Your task to perform on an android device: Open Wikipedia Image 0: 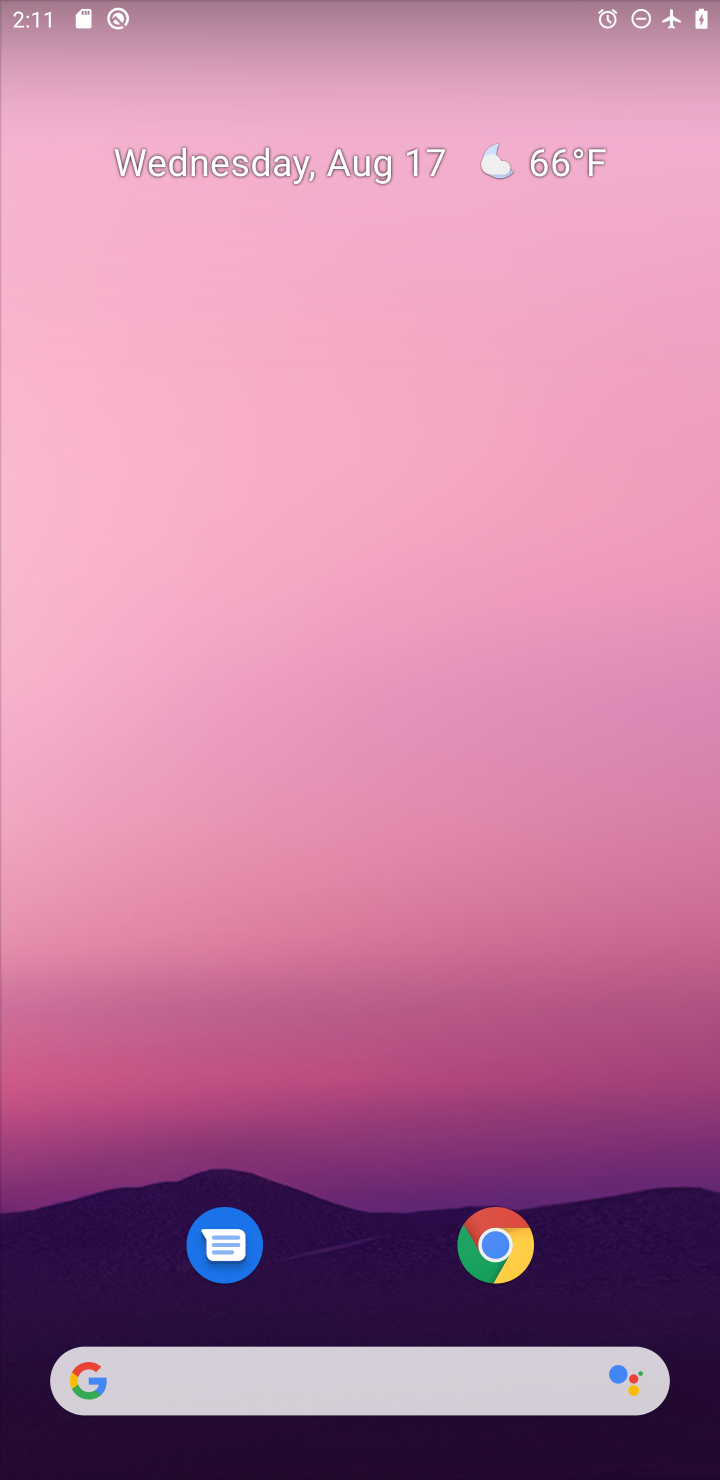
Step 0: click (497, 1246)
Your task to perform on an android device: Open Wikipedia Image 1: 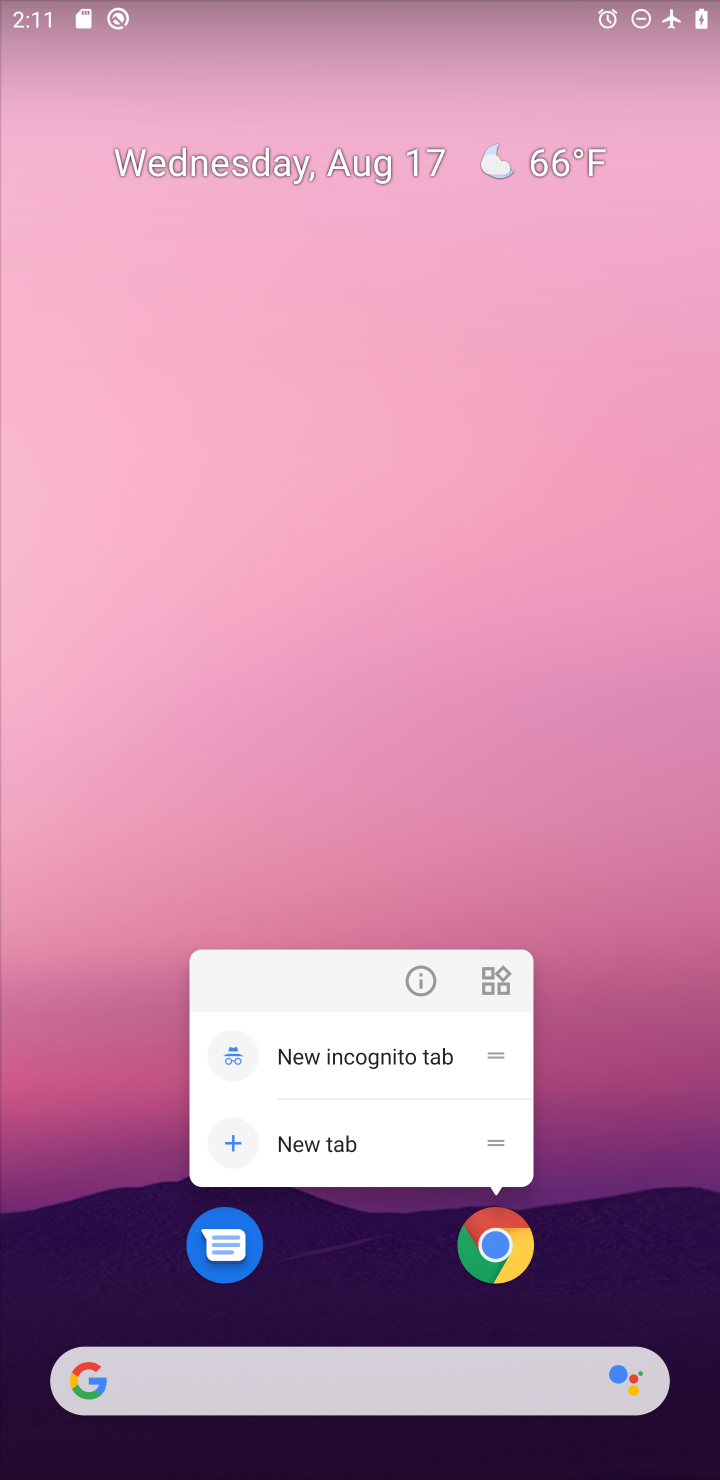
Step 1: click (497, 1246)
Your task to perform on an android device: Open Wikipedia Image 2: 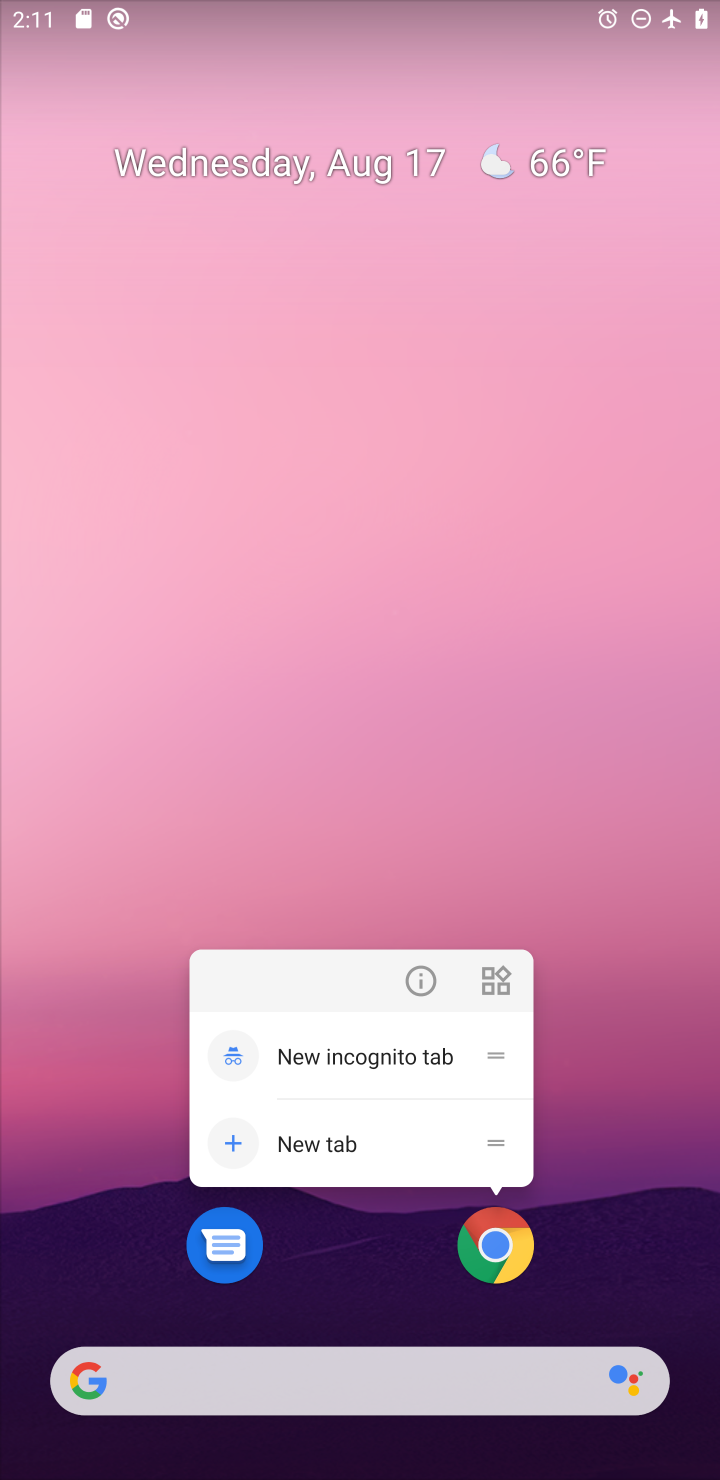
Step 2: click (497, 1246)
Your task to perform on an android device: Open Wikipedia Image 3: 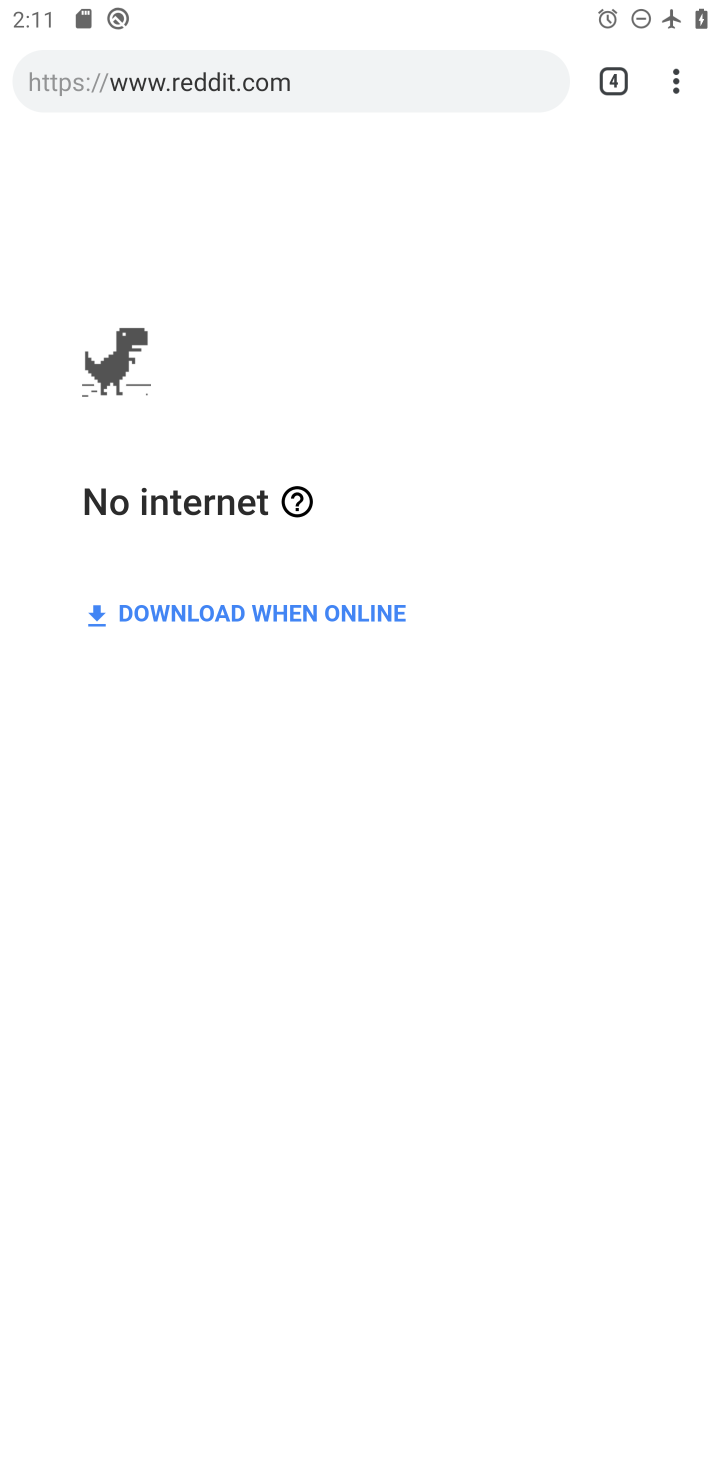
Step 3: task complete